Your task to perform on an android device: Open Reddit.com Image 0: 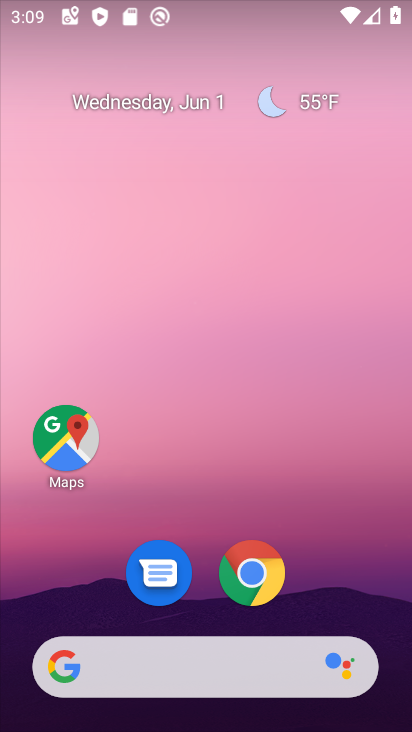
Step 0: click (249, 590)
Your task to perform on an android device: Open Reddit.com Image 1: 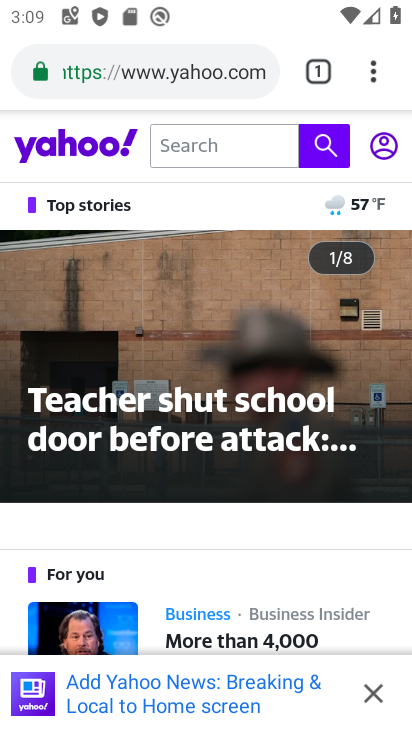
Step 1: click (318, 74)
Your task to perform on an android device: Open Reddit.com Image 2: 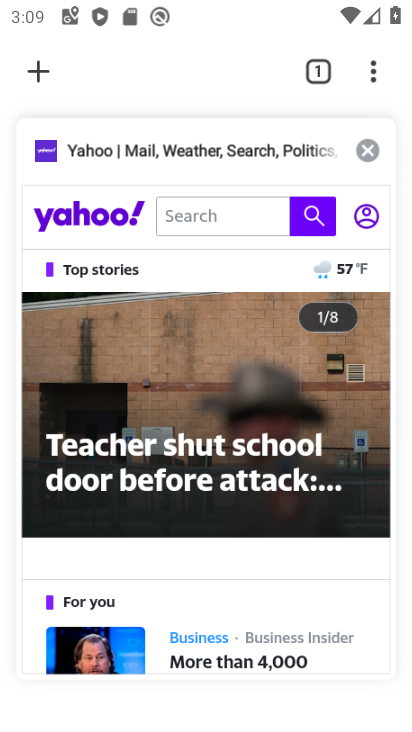
Step 2: click (364, 154)
Your task to perform on an android device: Open Reddit.com Image 3: 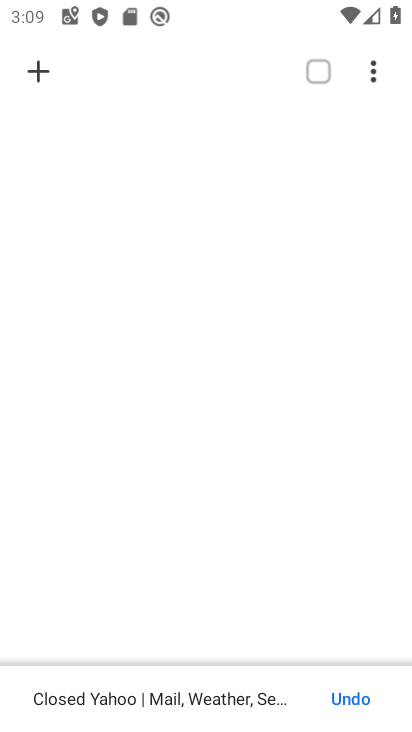
Step 3: click (28, 79)
Your task to perform on an android device: Open Reddit.com Image 4: 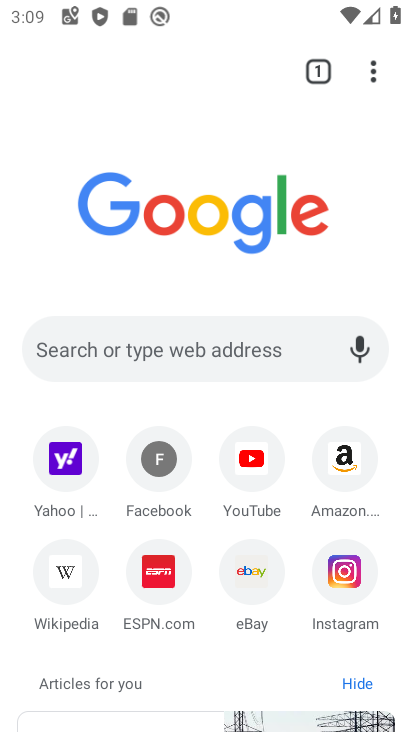
Step 4: click (192, 344)
Your task to perform on an android device: Open Reddit.com Image 5: 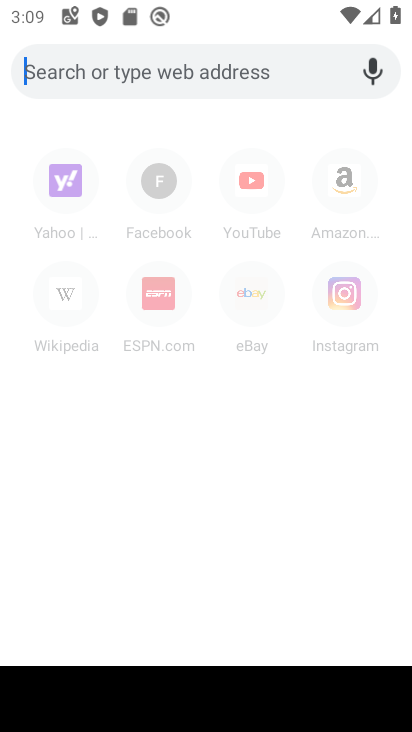
Step 5: type "reddit.com"
Your task to perform on an android device: Open Reddit.com Image 6: 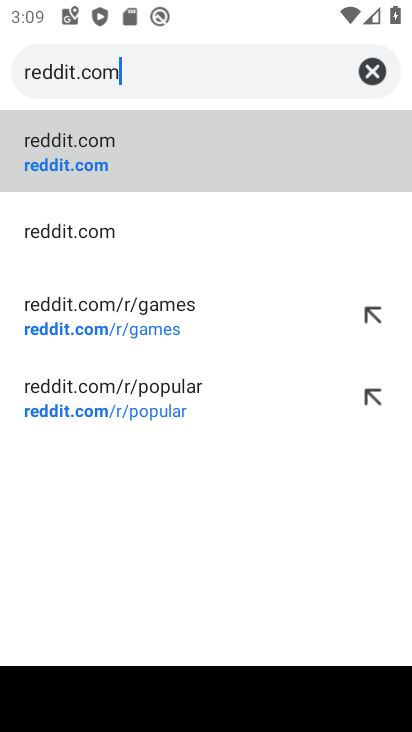
Step 6: click (149, 134)
Your task to perform on an android device: Open Reddit.com Image 7: 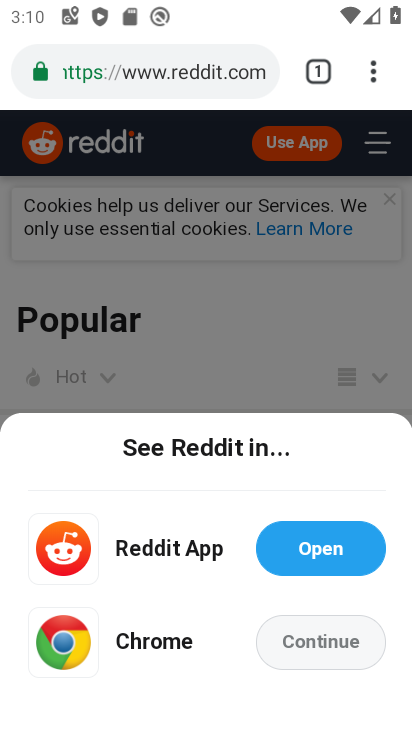
Step 7: click (320, 646)
Your task to perform on an android device: Open Reddit.com Image 8: 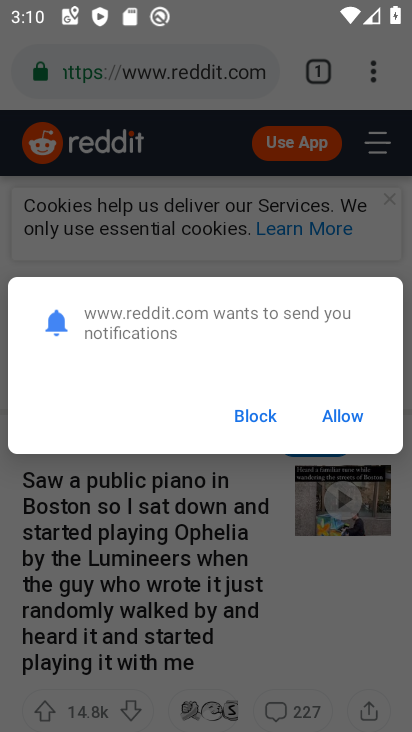
Step 8: click (284, 422)
Your task to perform on an android device: Open Reddit.com Image 9: 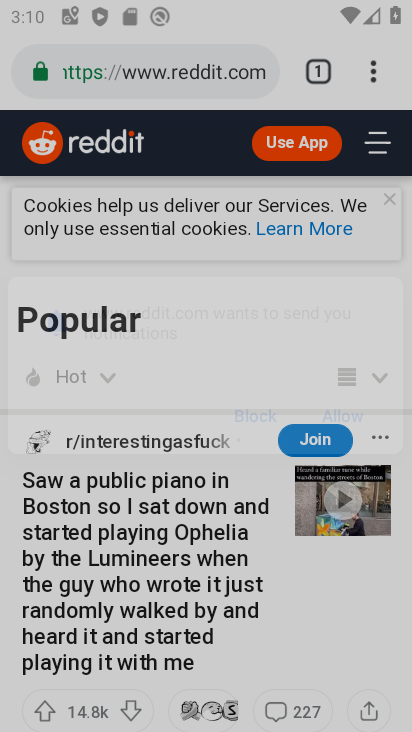
Step 9: click (240, 418)
Your task to perform on an android device: Open Reddit.com Image 10: 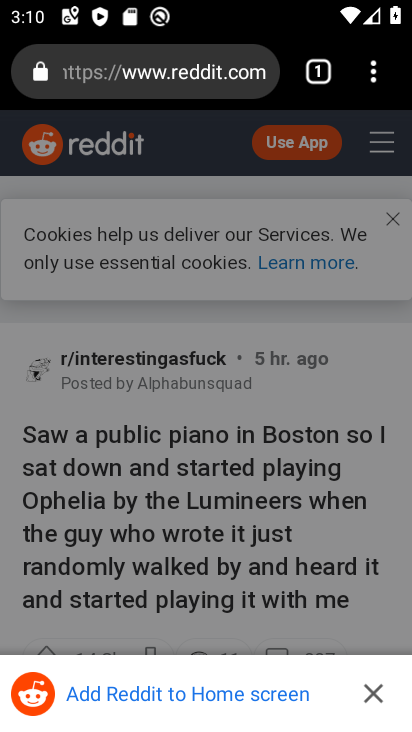
Step 10: task complete